Your task to perform on an android device: Open the map Image 0: 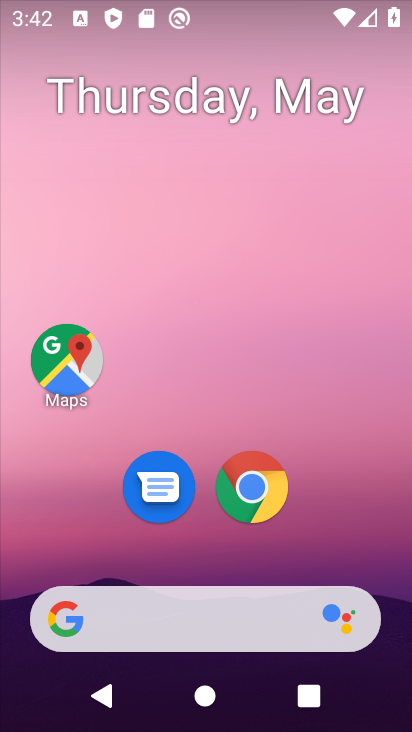
Step 0: click (77, 400)
Your task to perform on an android device: Open the map Image 1: 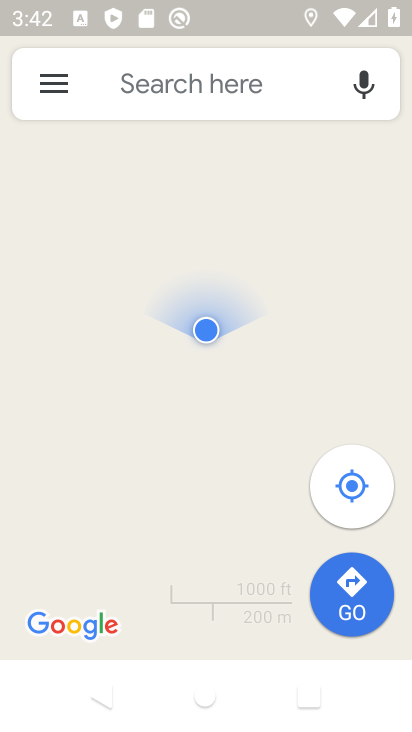
Step 1: task complete